Your task to perform on an android device: turn on data saver in the chrome app Image 0: 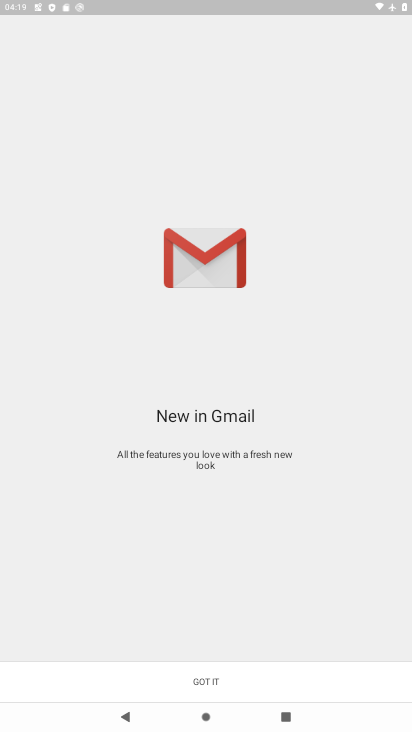
Step 0: press home button
Your task to perform on an android device: turn on data saver in the chrome app Image 1: 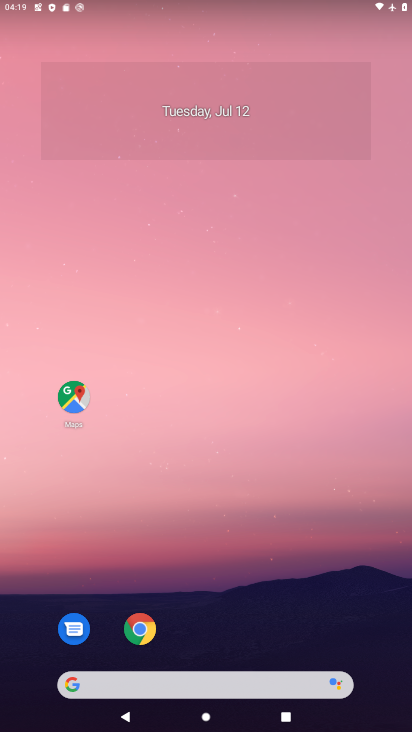
Step 1: drag from (299, 611) to (291, 169)
Your task to perform on an android device: turn on data saver in the chrome app Image 2: 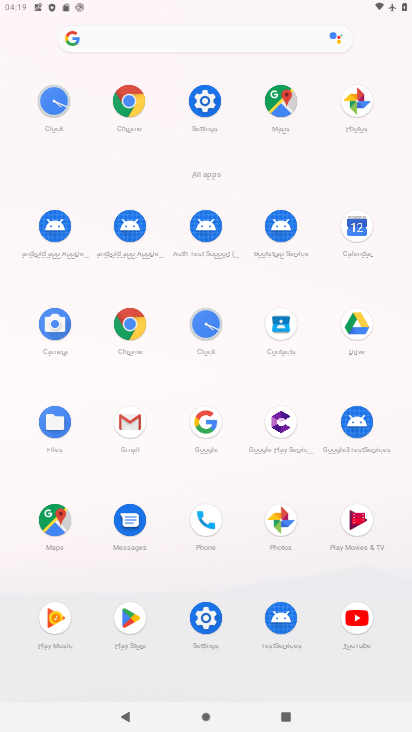
Step 2: click (130, 323)
Your task to perform on an android device: turn on data saver in the chrome app Image 3: 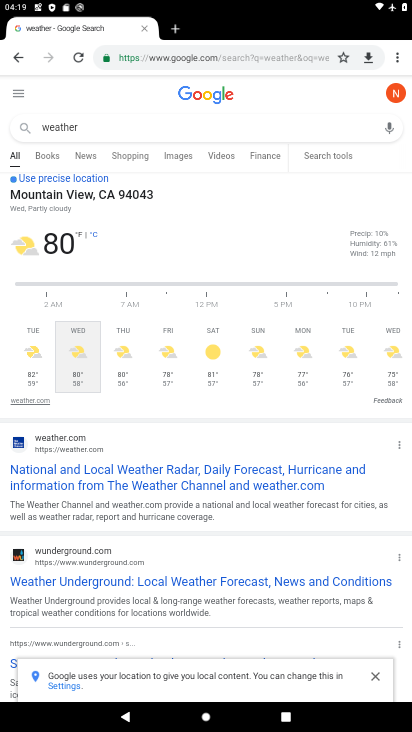
Step 3: click (399, 60)
Your task to perform on an android device: turn on data saver in the chrome app Image 4: 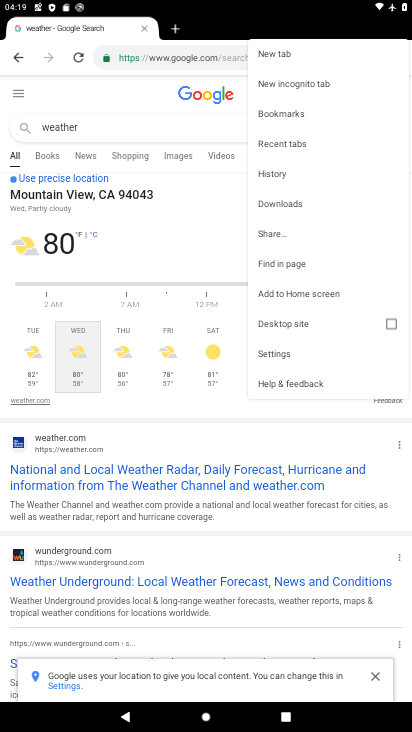
Step 4: click (292, 361)
Your task to perform on an android device: turn on data saver in the chrome app Image 5: 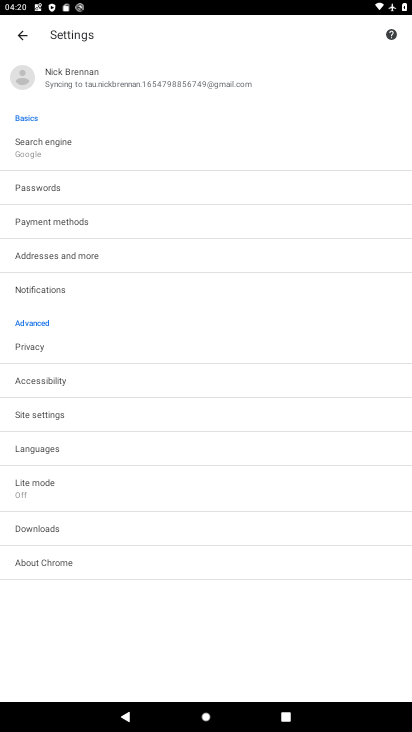
Step 5: click (88, 492)
Your task to perform on an android device: turn on data saver in the chrome app Image 6: 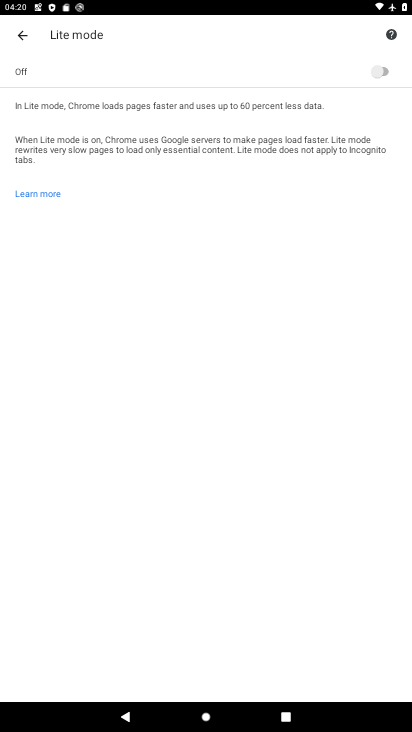
Step 6: click (390, 66)
Your task to perform on an android device: turn on data saver in the chrome app Image 7: 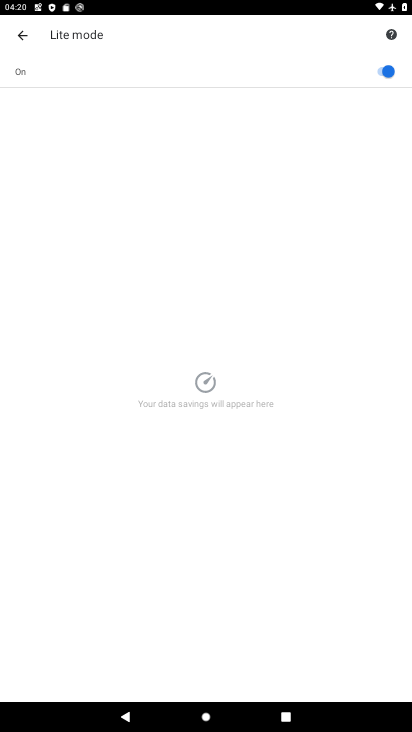
Step 7: task complete